Your task to perform on an android device: turn on bluetooth scan Image 0: 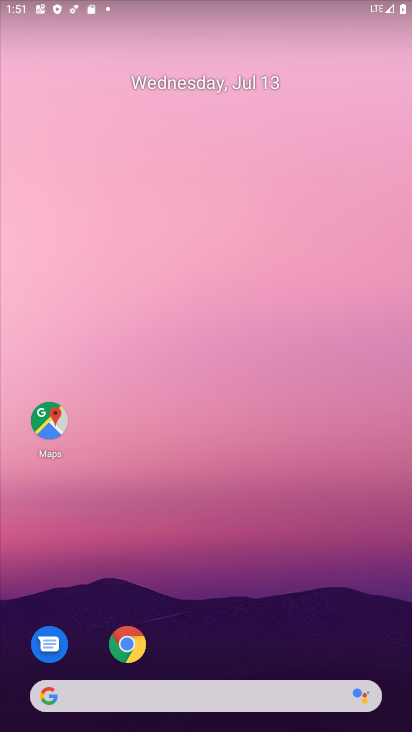
Step 0: drag from (357, 639) to (273, 101)
Your task to perform on an android device: turn on bluetooth scan Image 1: 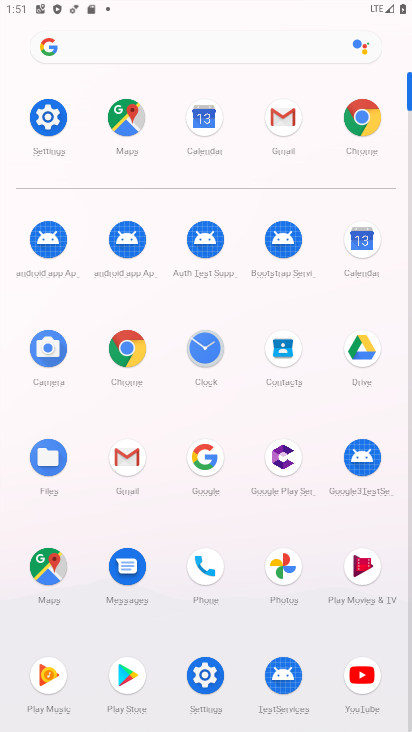
Step 1: click (49, 115)
Your task to perform on an android device: turn on bluetooth scan Image 2: 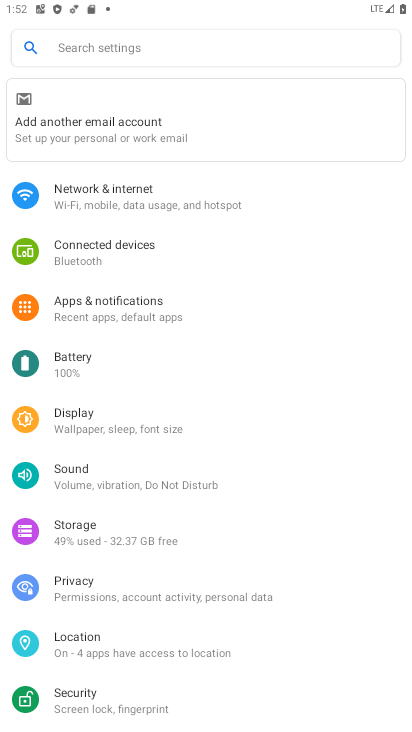
Step 2: click (118, 650)
Your task to perform on an android device: turn on bluetooth scan Image 3: 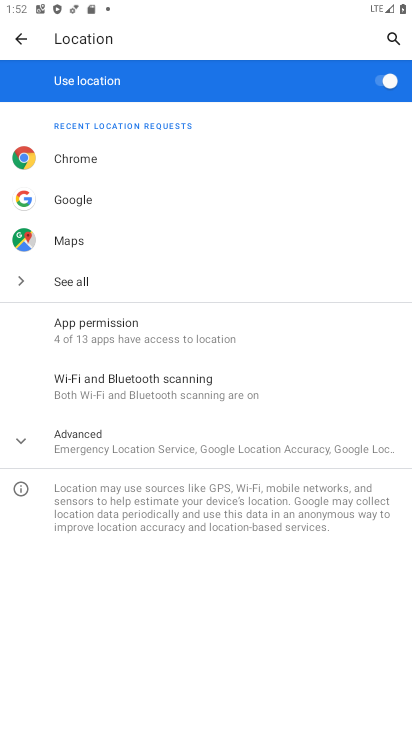
Step 3: click (121, 394)
Your task to perform on an android device: turn on bluetooth scan Image 4: 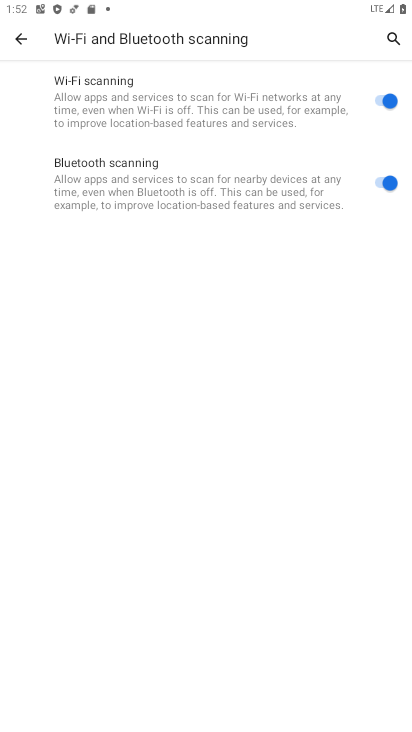
Step 4: task complete